Your task to perform on an android device: delete browsing data in the chrome app Image 0: 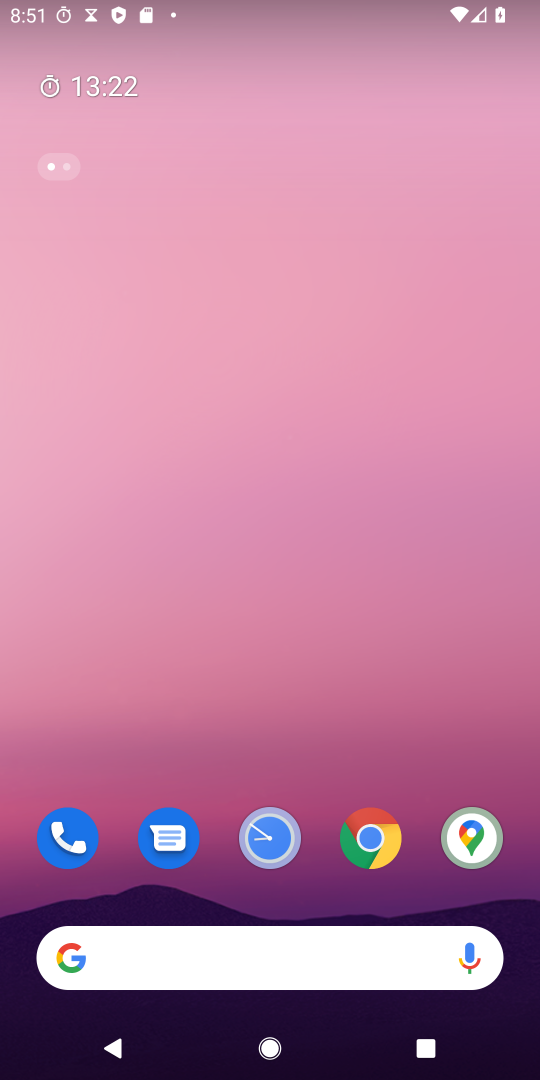
Step 0: click (387, 852)
Your task to perform on an android device: delete browsing data in the chrome app Image 1: 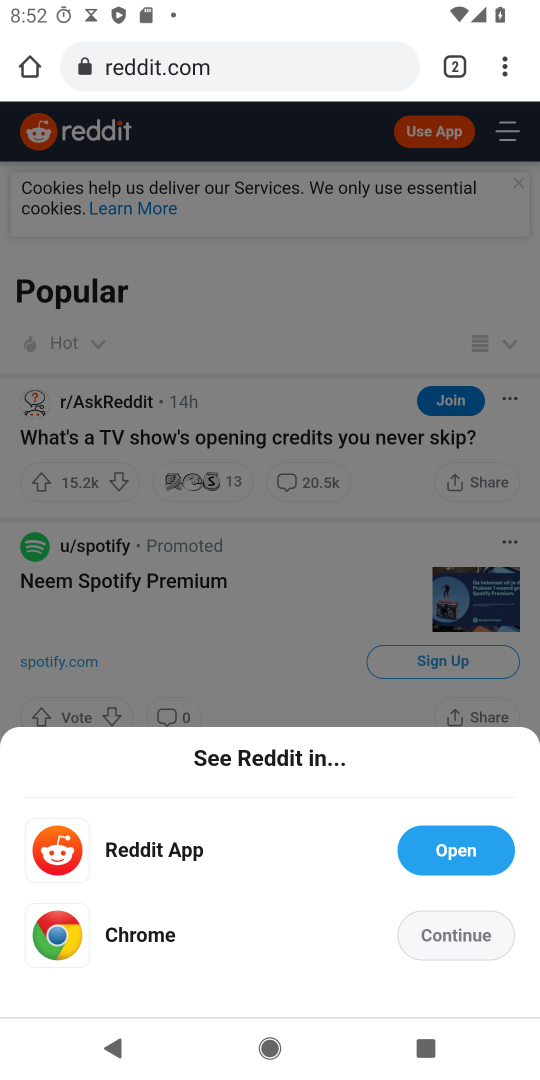
Step 1: drag from (492, 58) to (389, 846)
Your task to perform on an android device: delete browsing data in the chrome app Image 2: 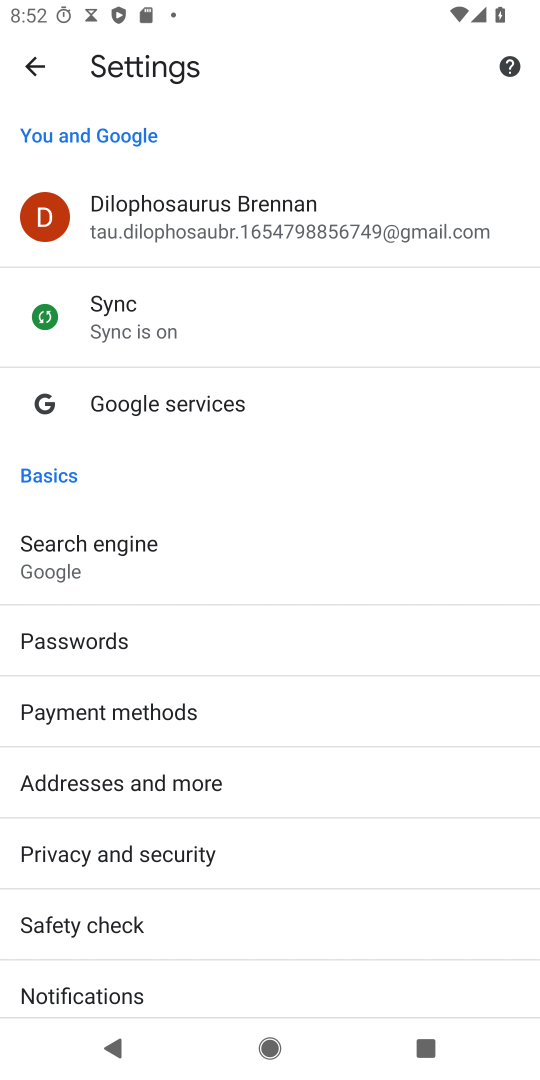
Step 2: drag from (201, 791) to (181, 471)
Your task to perform on an android device: delete browsing data in the chrome app Image 3: 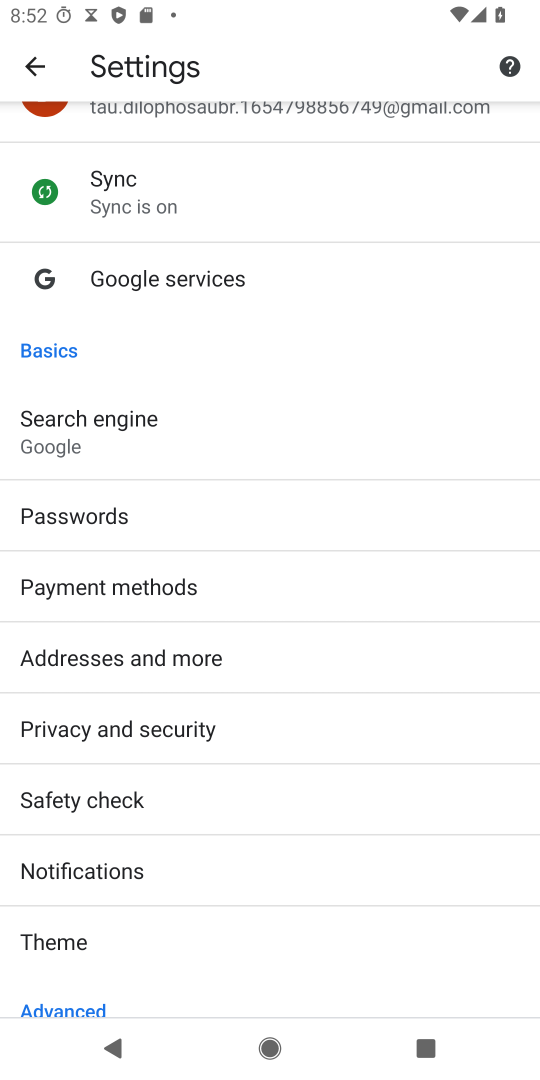
Step 3: click (171, 740)
Your task to perform on an android device: delete browsing data in the chrome app Image 4: 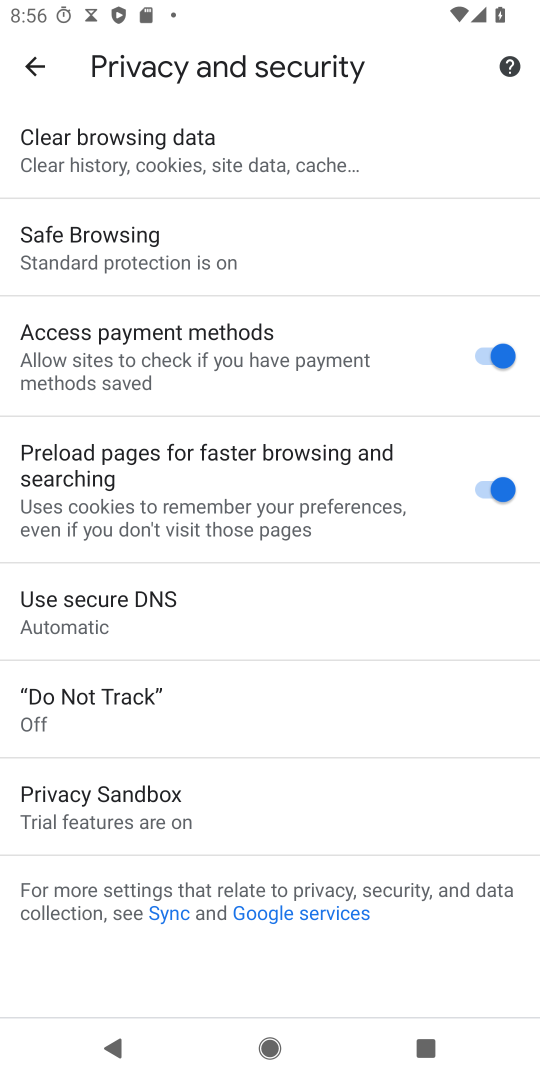
Step 4: click (160, 174)
Your task to perform on an android device: delete browsing data in the chrome app Image 5: 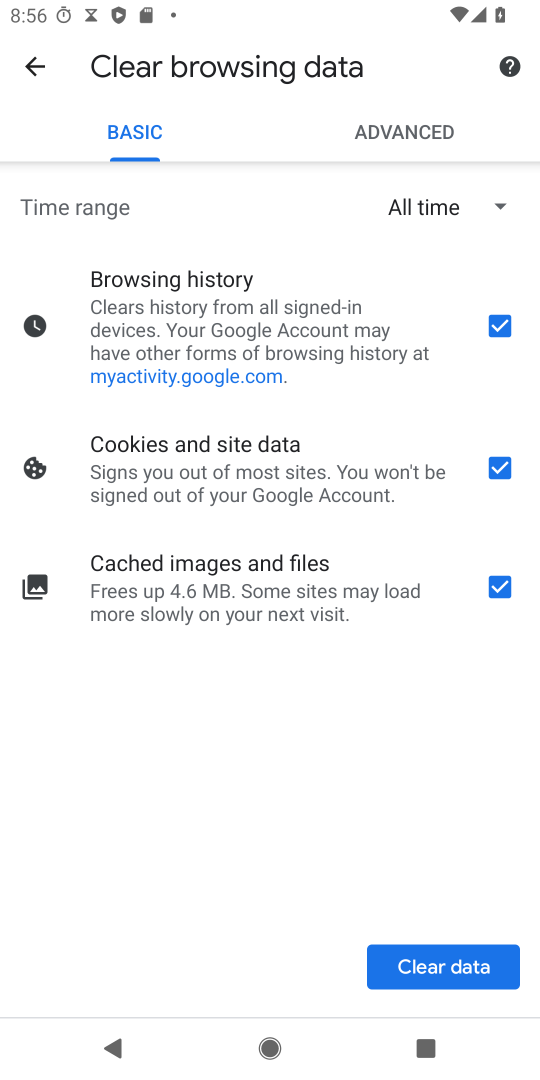
Step 5: click (468, 976)
Your task to perform on an android device: delete browsing data in the chrome app Image 6: 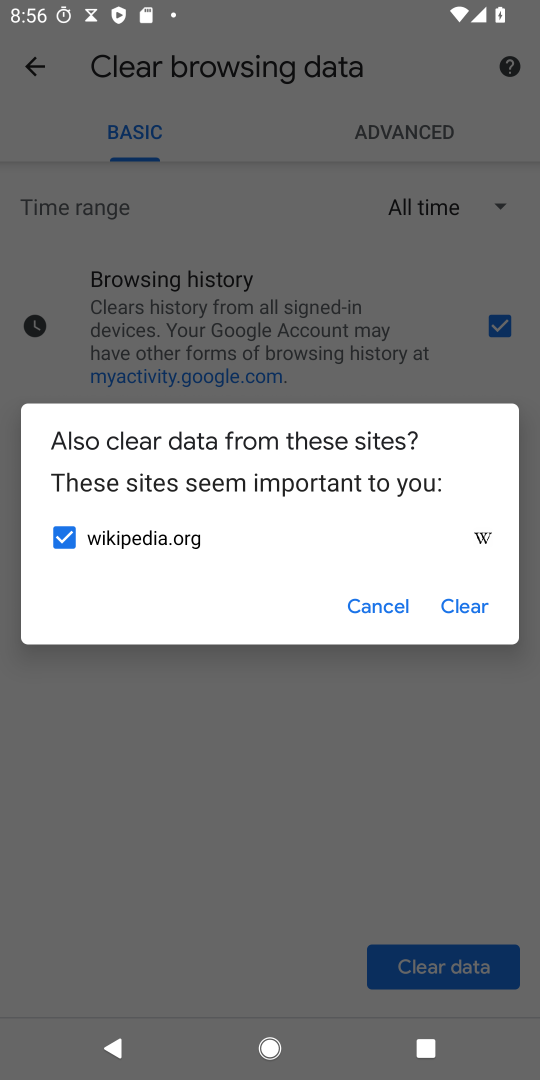
Step 6: click (455, 600)
Your task to perform on an android device: delete browsing data in the chrome app Image 7: 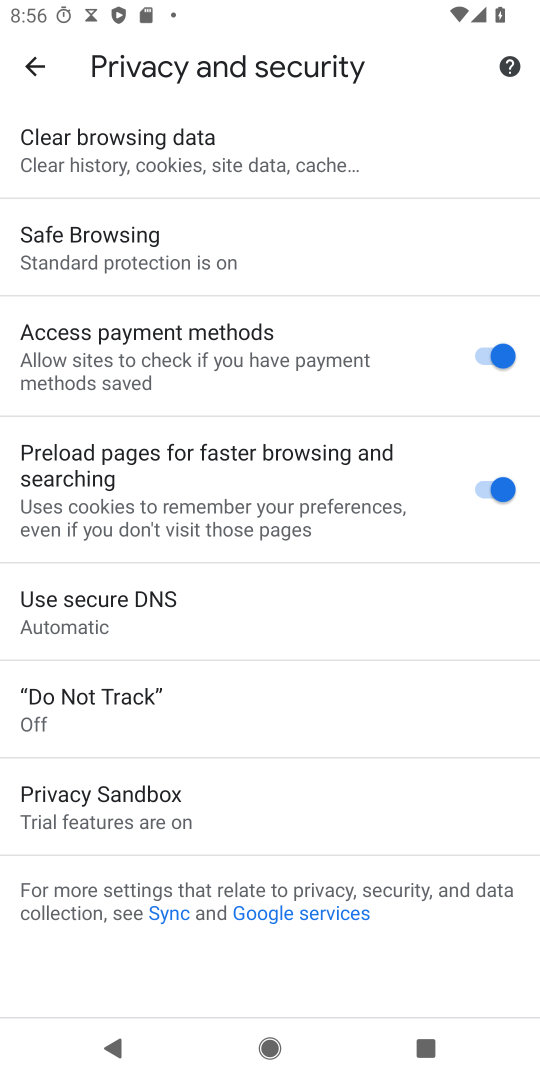
Step 7: task complete